Your task to perform on an android device: change notifications settings Image 0: 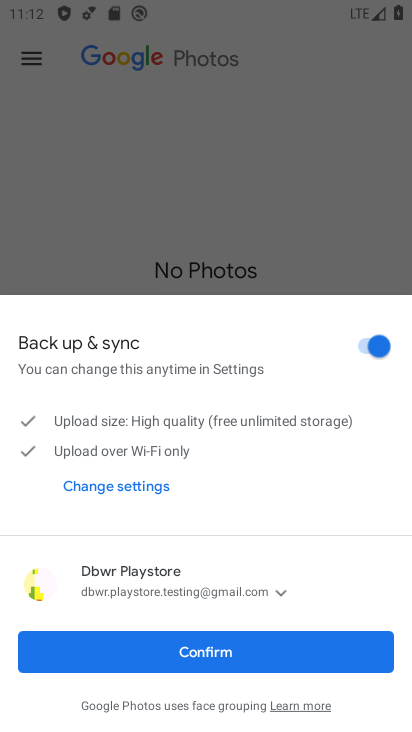
Step 0: press home button
Your task to perform on an android device: change notifications settings Image 1: 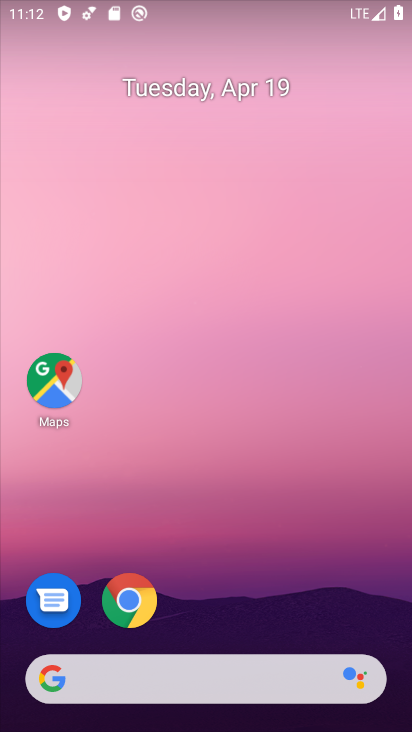
Step 1: drag from (337, 634) to (362, 3)
Your task to perform on an android device: change notifications settings Image 2: 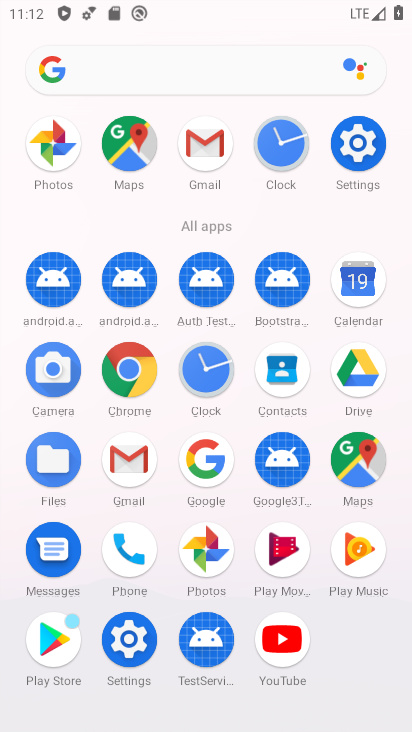
Step 2: click (356, 148)
Your task to perform on an android device: change notifications settings Image 3: 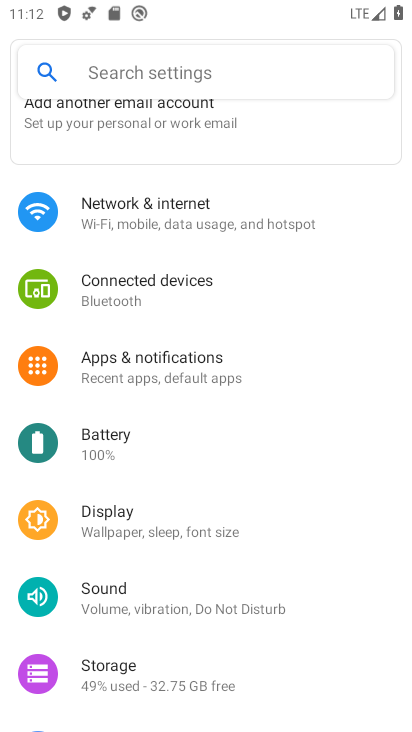
Step 3: click (174, 365)
Your task to perform on an android device: change notifications settings Image 4: 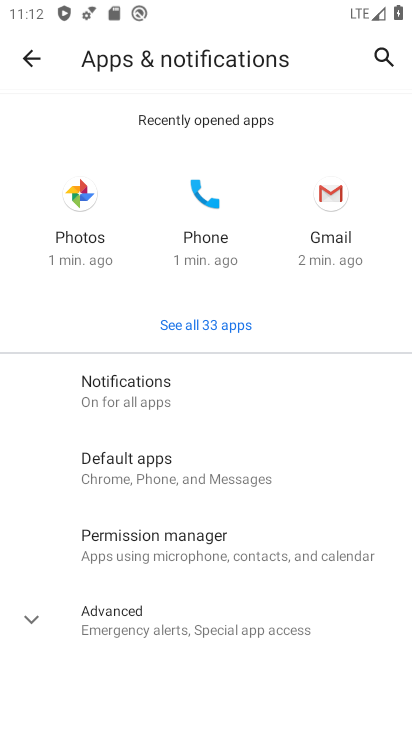
Step 4: click (136, 401)
Your task to perform on an android device: change notifications settings Image 5: 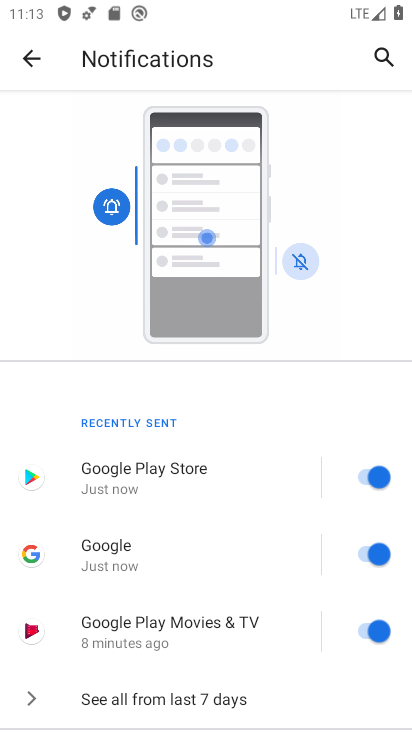
Step 5: drag from (194, 589) to (188, 180)
Your task to perform on an android device: change notifications settings Image 6: 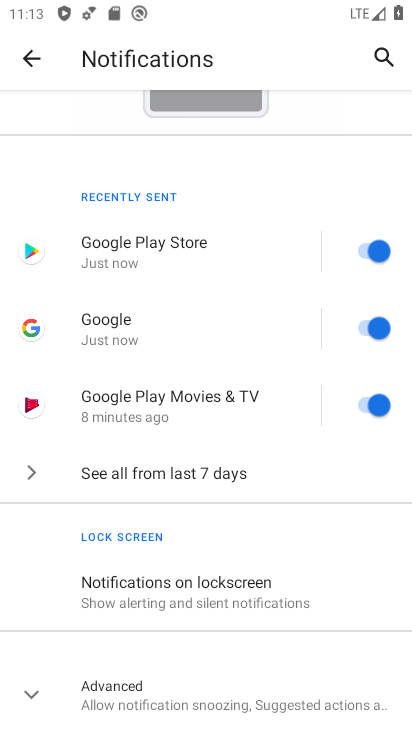
Step 6: drag from (175, 496) to (172, 221)
Your task to perform on an android device: change notifications settings Image 7: 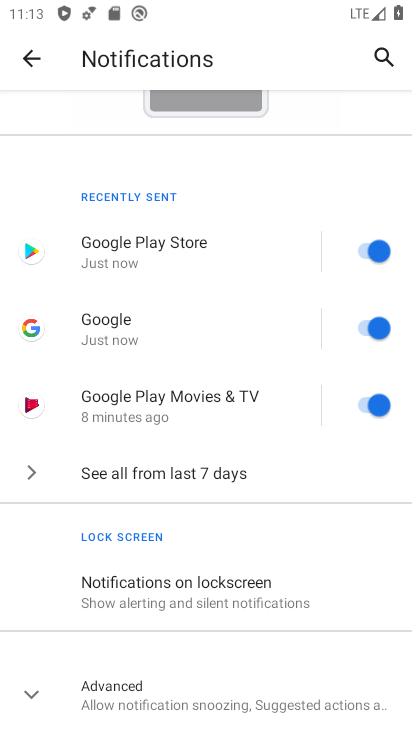
Step 7: click (153, 471)
Your task to perform on an android device: change notifications settings Image 8: 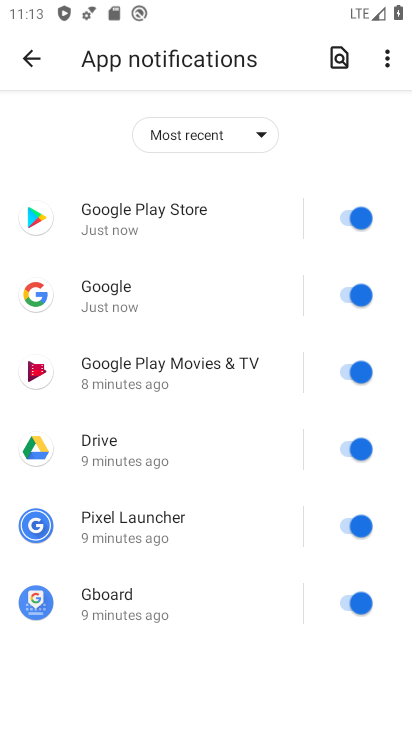
Step 8: click (262, 129)
Your task to perform on an android device: change notifications settings Image 9: 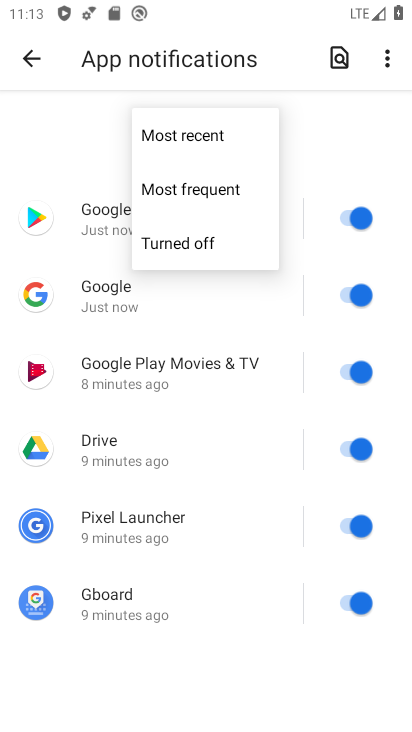
Step 9: click (198, 183)
Your task to perform on an android device: change notifications settings Image 10: 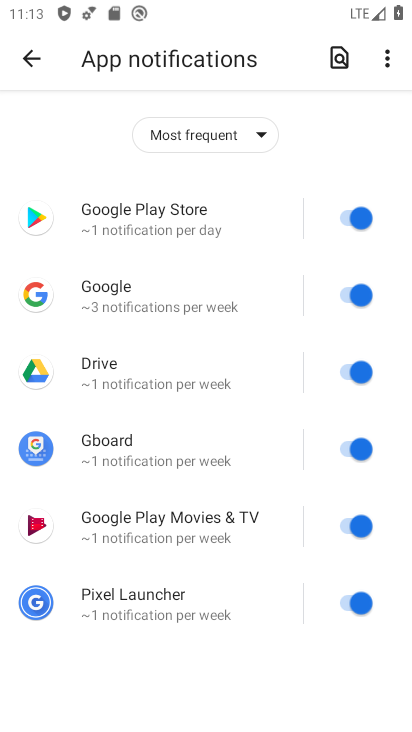
Step 10: task complete